Your task to perform on an android device: toggle pop-ups in chrome Image 0: 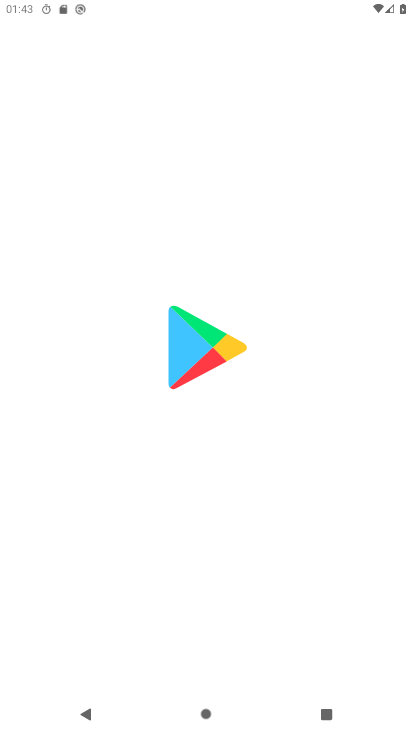
Step 0: click (43, 393)
Your task to perform on an android device: toggle pop-ups in chrome Image 1: 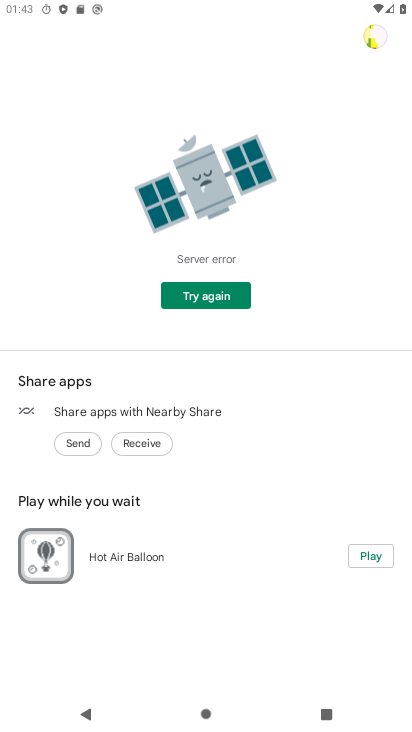
Step 1: press home button
Your task to perform on an android device: toggle pop-ups in chrome Image 2: 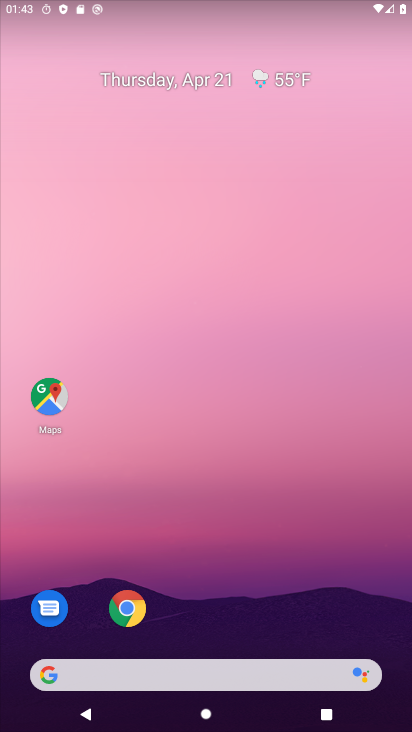
Step 2: click (145, 595)
Your task to perform on an android device: toggle pop-ups in chrome Image 3: 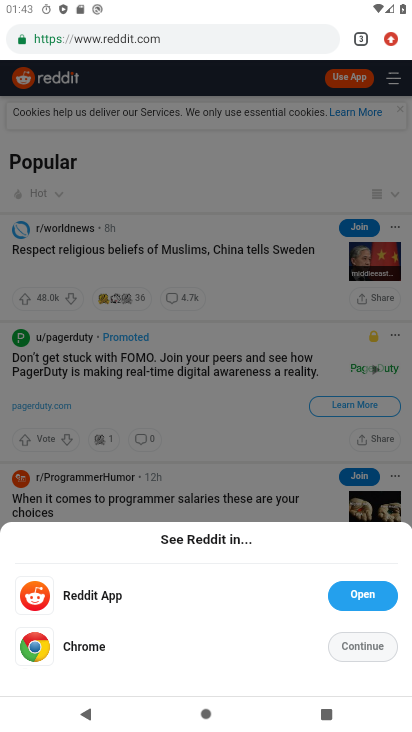
Step 3: drag from (389, 37) to (258, 519)
Your task to perform on an android device: toggle pop-ups in chrome Image 4: 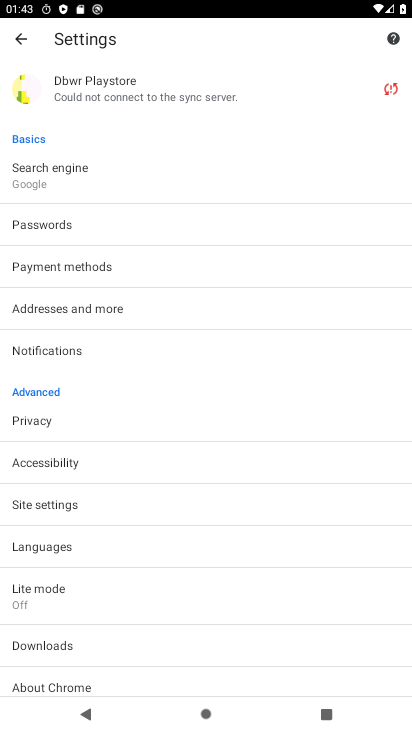
Step 4: click (43, 503)
Your task to perform on an android device: toggle pop-ups in chrome Image 5: 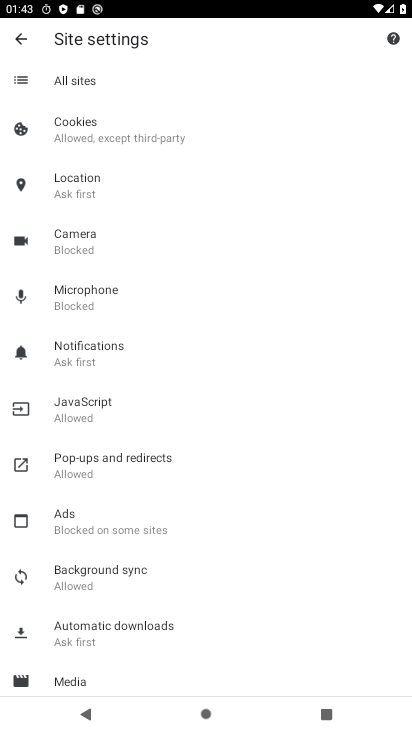
Step 5: click (91, 460)
Your task to perform on an android device: toggle pop-ups in chrome Image 6: 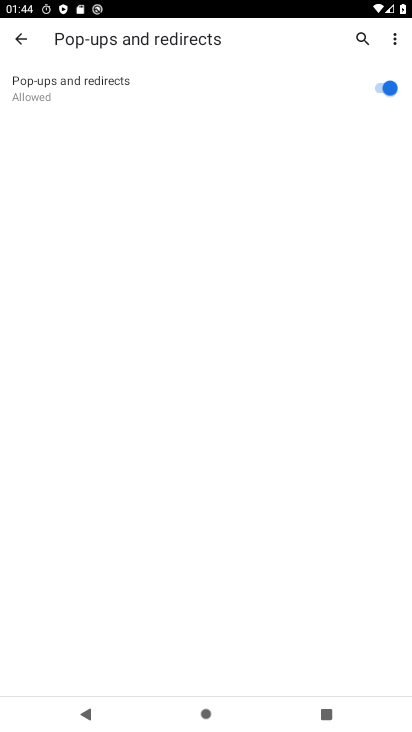
Step 6: click (388, 87)
Your task to perform on an android device: toggle pop-ups in chrome Image 7: 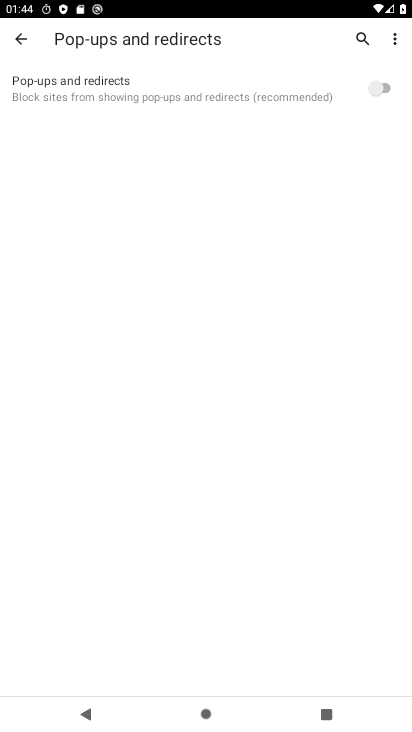
Step 7: task complete